Your task to perform on an android device: turn on wifi Image 0: 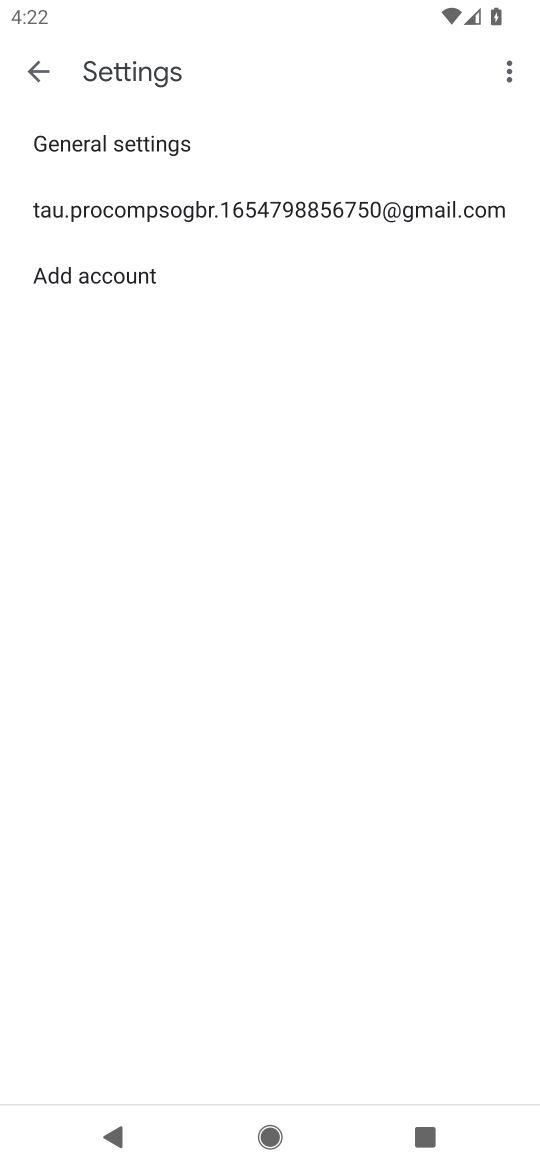
Step 0: press home button
Your task to perform on an android device: turn on wifi Image 1: 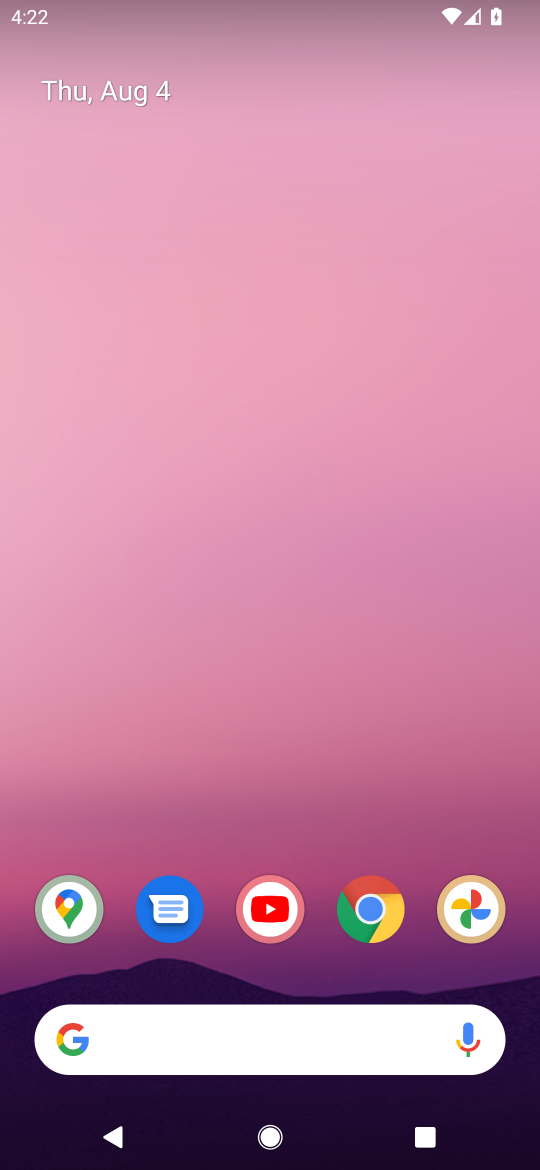
Step 1: click (47, 1032)
Your task to perform on an android device: turn on wifi Image 2: 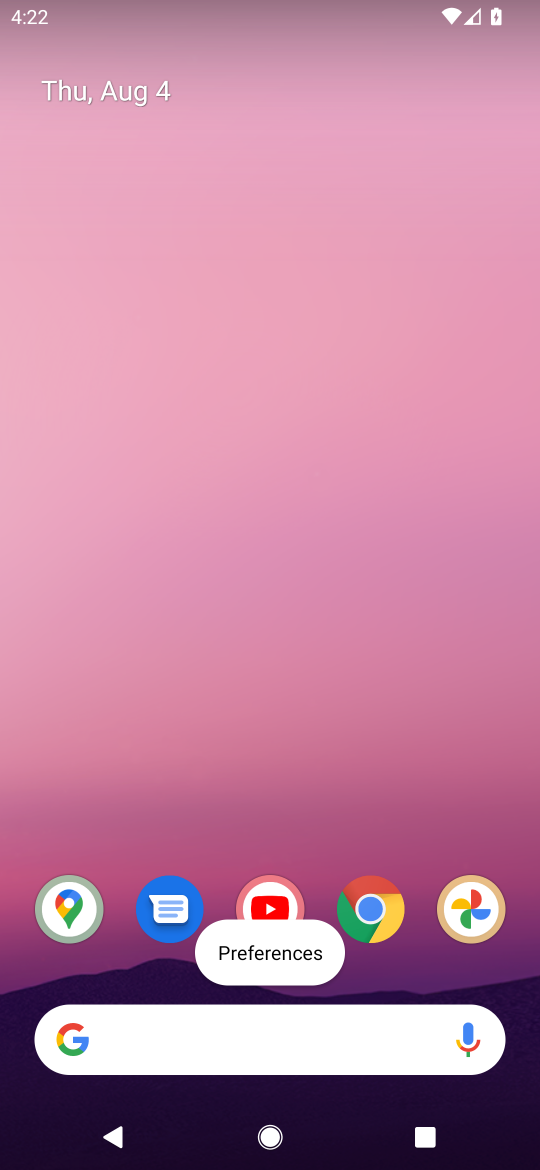
Step 2: drag from (248, 150) to (257, 447)
Your task to perform on an android device: turn on wifi Image 3: 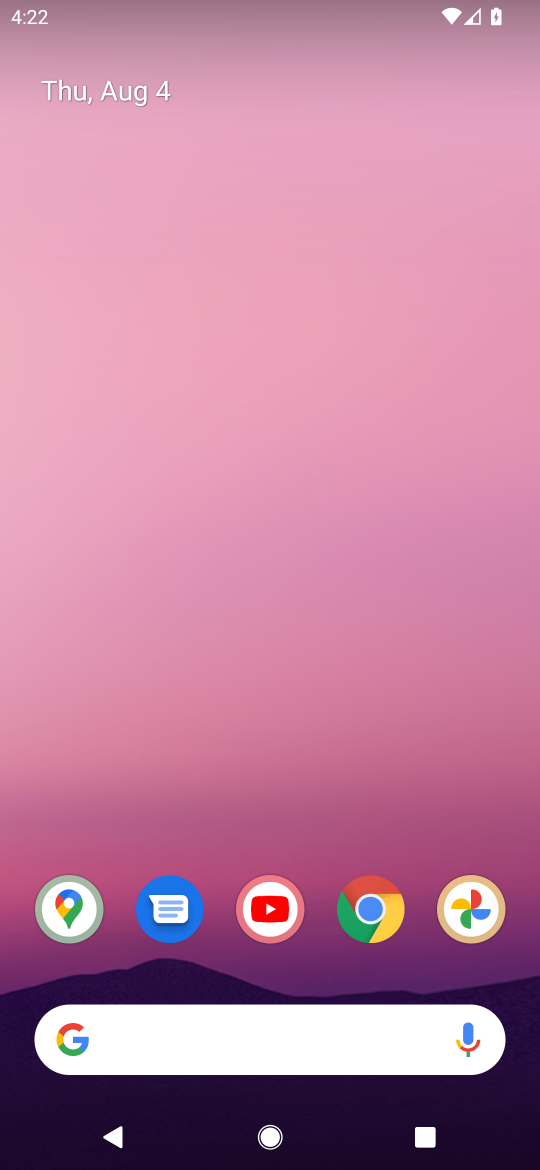
Step 3: drag from (311, 4) to (315, 532)
Your task to perform on an android device: turn on wifi Image 4: 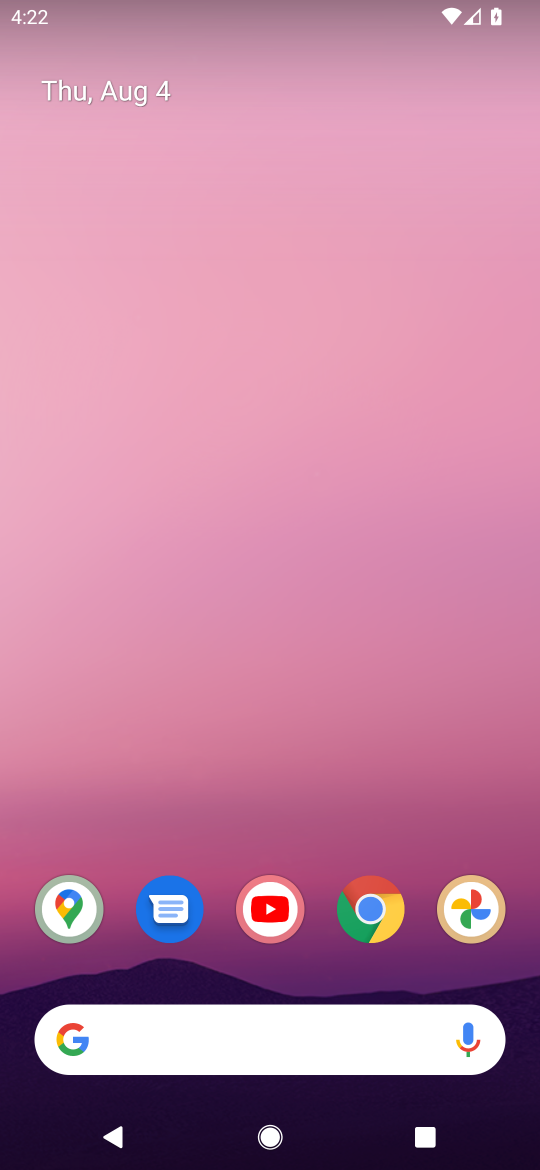
Step 4: drag from (444, 310) to (480, 549)
Your task to perform on an android device: turn on wifi Image 5: 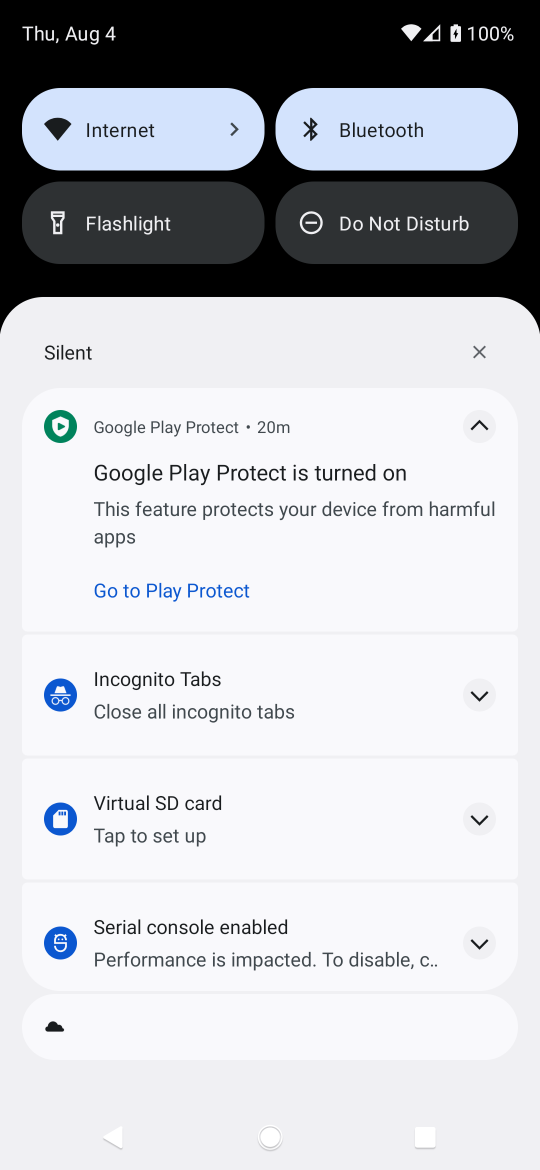
Step 5: click (171, 129)
Your task to perform on an android device: turn on wifi Image 6: 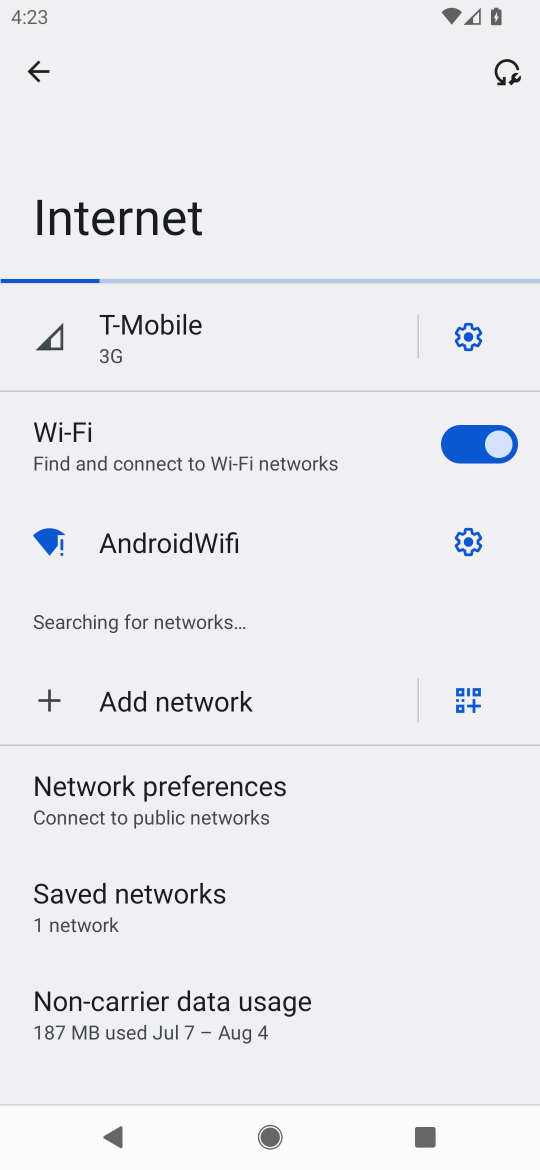
Step 6: task complete